Your task to perform on an android device: Open Yahoo.com Image 0: 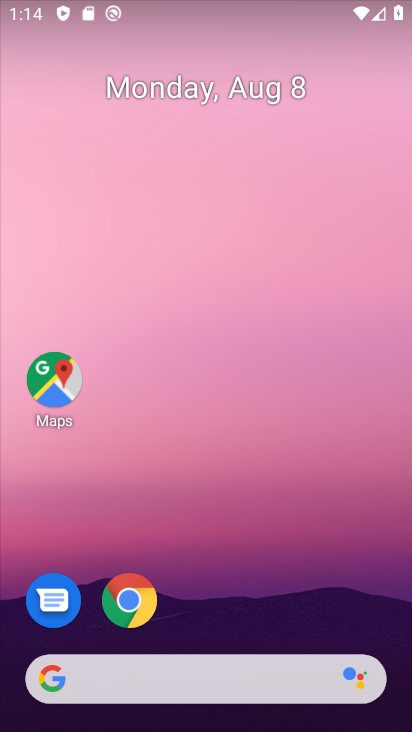
Step 0: press home button
Your task to perform on an android device: Open Yahoo.com Image 1: 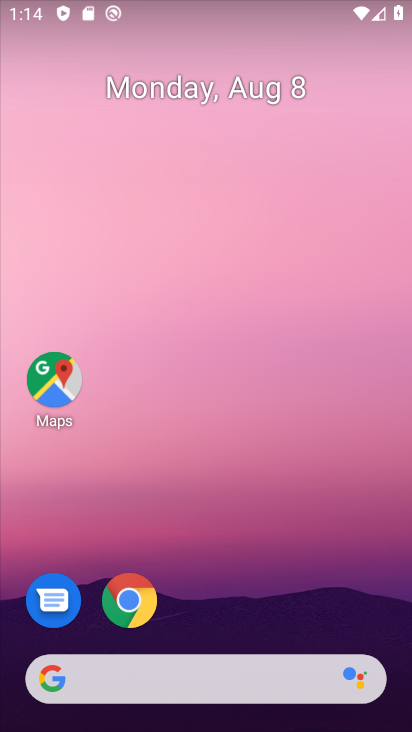
Step 1: press home button
Your task to perform on an android device: Open Yahoo.com Image 2: 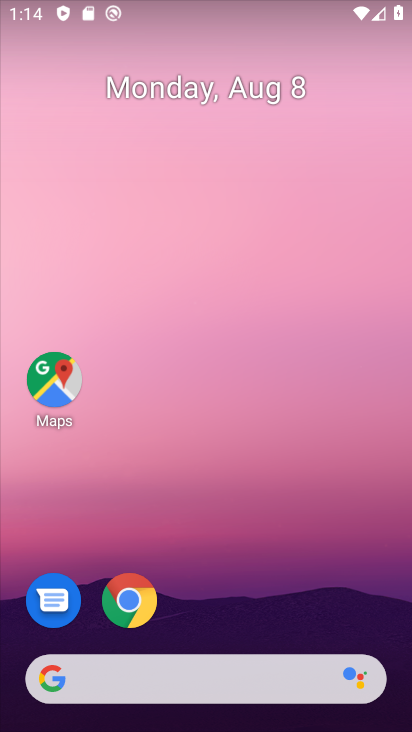
Step 2: press home button
Your task to perform on an android device: Open Yahoo.com Image 3: 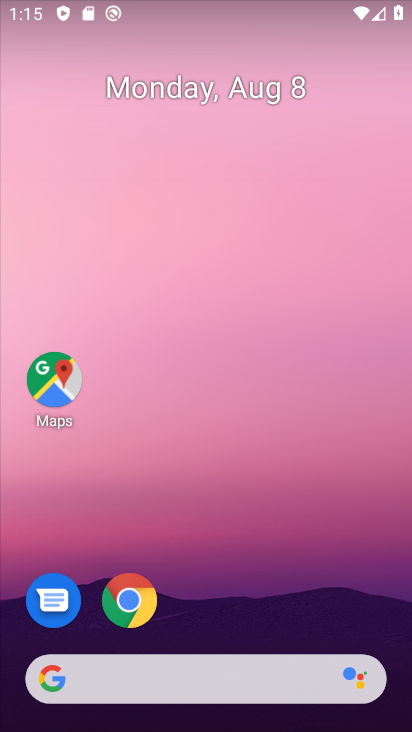
Step 3: click (131, 598)
Your task to perform on an android device: Open Yahoo.com Image 4: 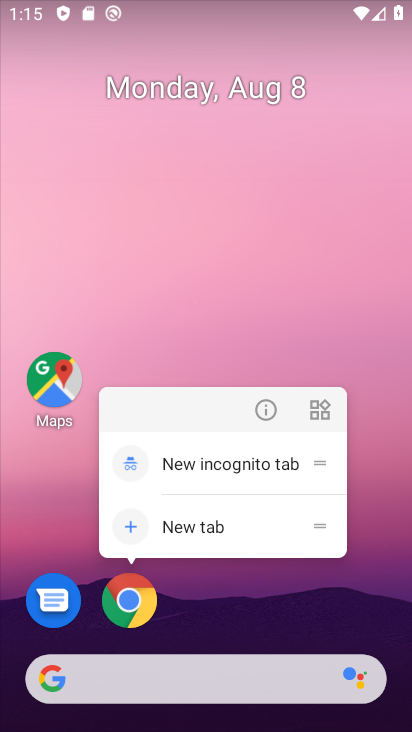
Step 4: click (116, 603)
Your task to perform on an android device: Open Yahoo.com Image 5: 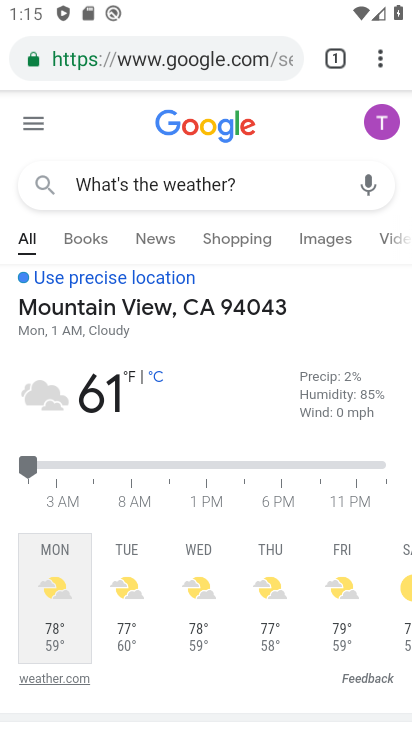
Step 5: click (182, 60)
Your task to perform on an android device: Open Yahoo.com Image 6: 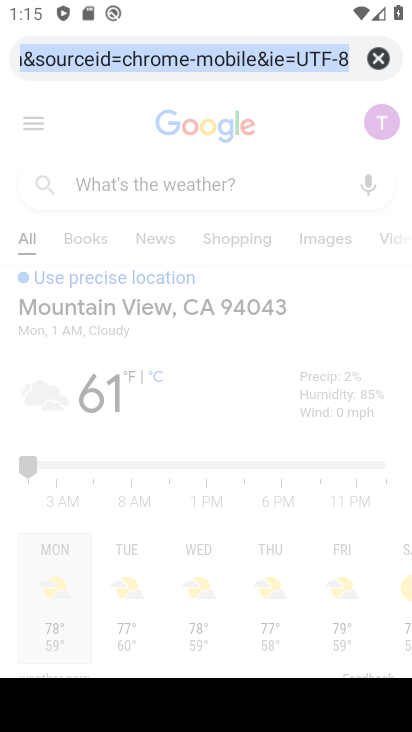
Step 6: type "Yahoo.com"
Your task to perform on an android device: Open Yahoo.com Image 7: 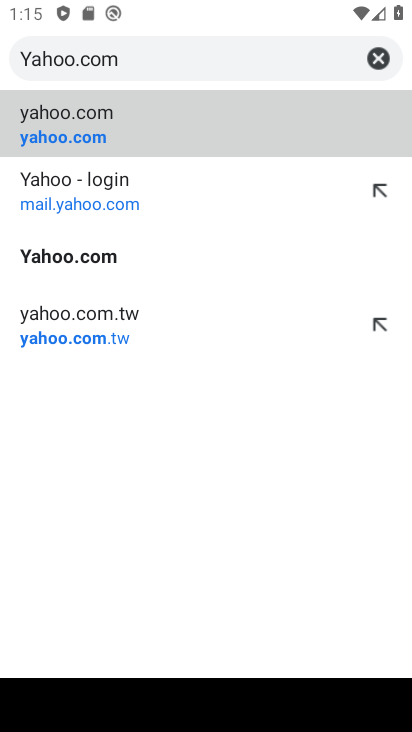
Step 7: click (177, 140)
Your task to perform on an android device: Open Yahoo.com Image 8: 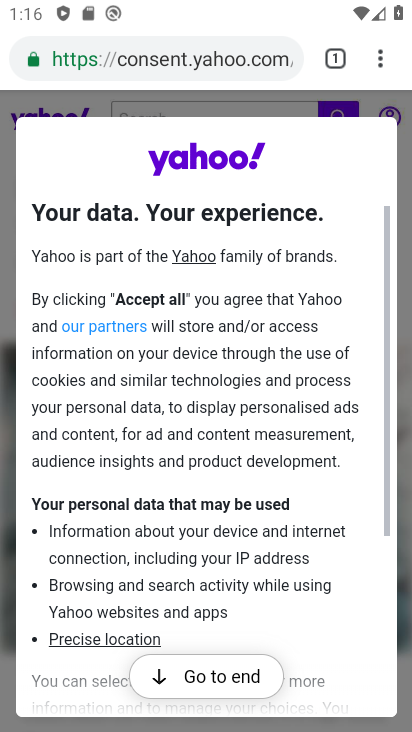
Step 8: task complete